Your task to perform on an android device: Go to accessibility settings Image 0: 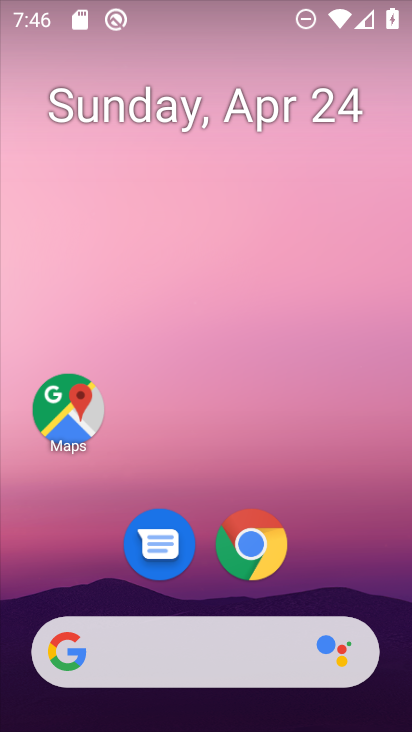
Step 0: drag from (179, 603) to (313, 42)
Your task to perform on an android device: Go to accessibility settings Image 1: 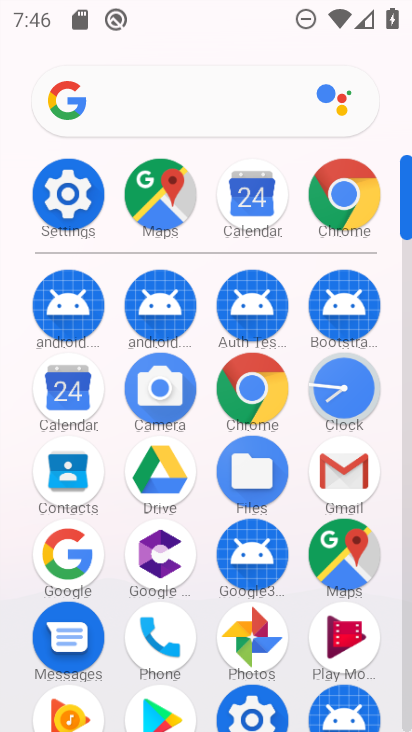
Step 1: click (74, 193)
Your task to perform on an android device: Go to accessibility settings Image 2: 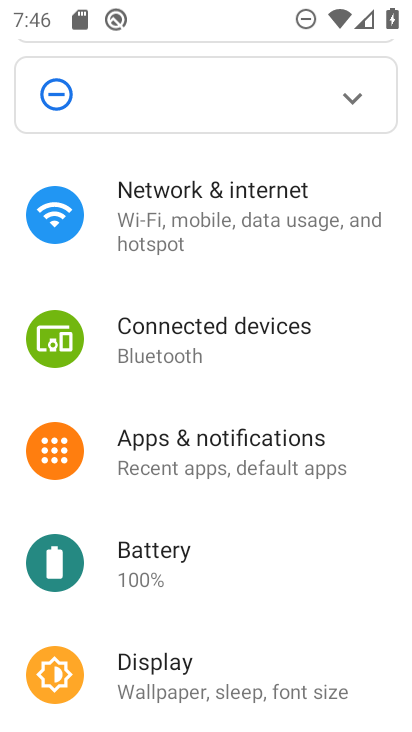
Step 2: drag from (200, 661) to (384, 140)
Your task to perform on an android device: Go to accessibility settings Image 3: 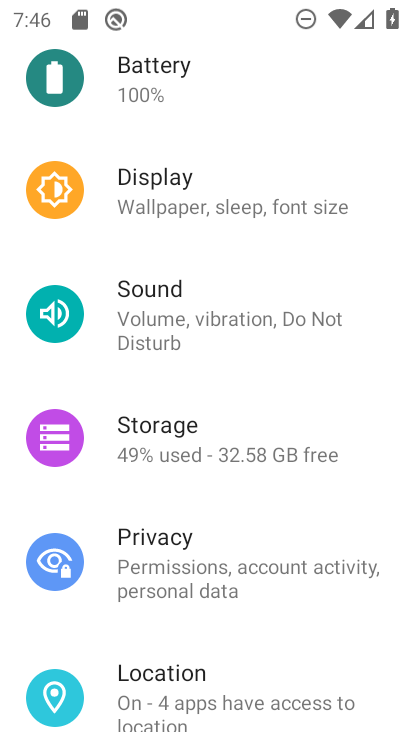
Step 3: drag from (207, 670) to (354, 112)
Your task to perform on an android device: Go to accessibility settings Image 4: 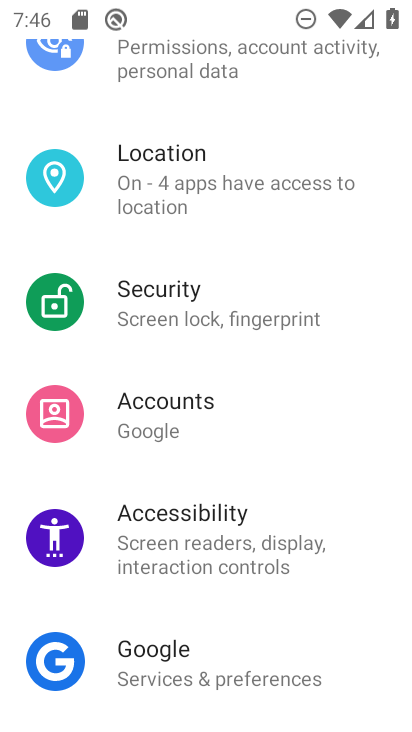
Step 4: click (175, 530)
Your task to perform on an android device: Go to accessibility settings Image 5: 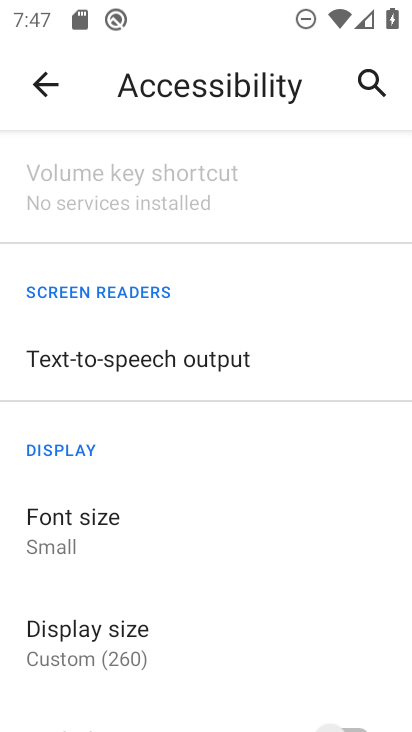
Step 5: task complete